Your task to perform on an android device: choose inbox layout in the gmail app Image 0: 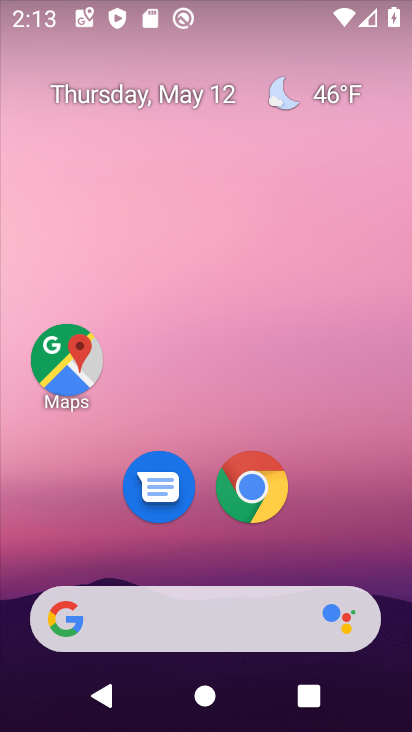
Step 0: drag from (197, 547) to (233, 54)
Your task to perform on an android device: choose inbox layout in the gmail app Image 1: 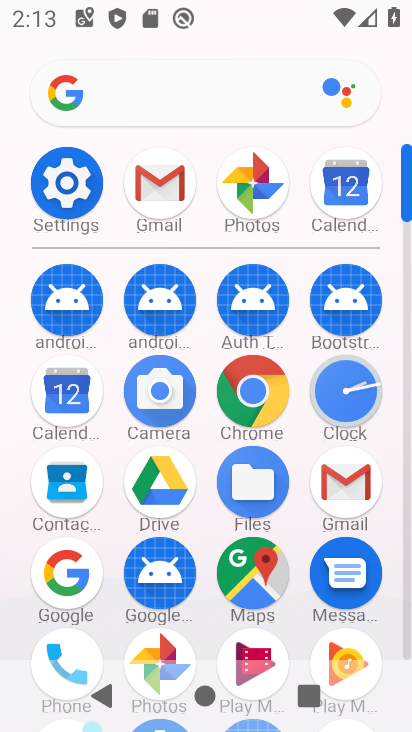
Step 1: click (158, 203)
Your task to perform on an android device: choose inbox layout in the gmail app Image 2: 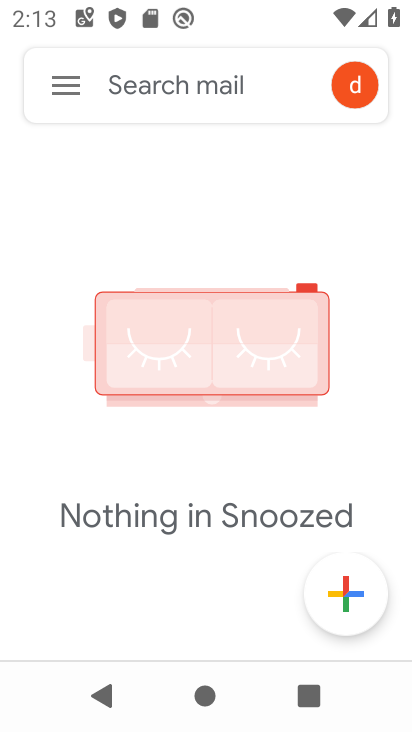
Step 2: click (62, 80)
Your task to perform on an android device: choose inbox layout in the gmail app Image 3: 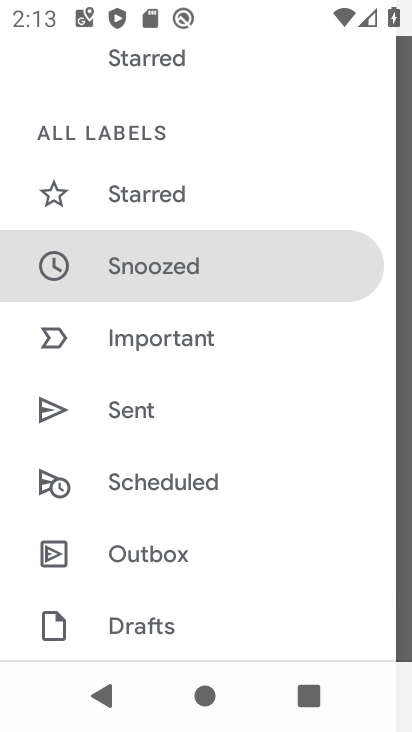
Step 3: drag from (169, 600) to (182, 173)
Your task to perform on an android device: choose inbox layout in the gmail app Image 4: 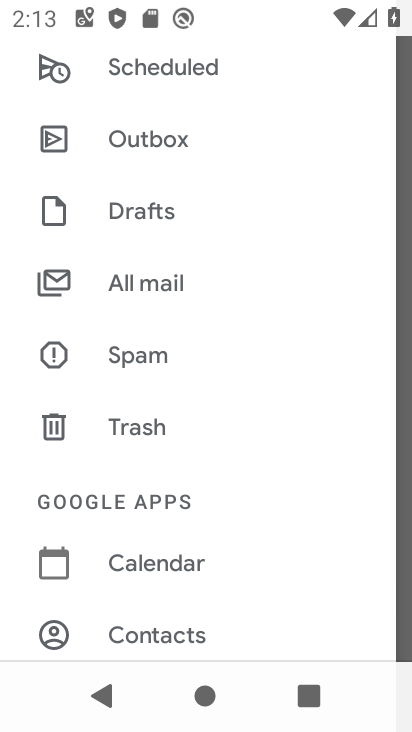
Step 4: drag from (173, 568) to (221, 177)
Your task to perform on an android device: choose inbox layout in the gmail app Image 5: 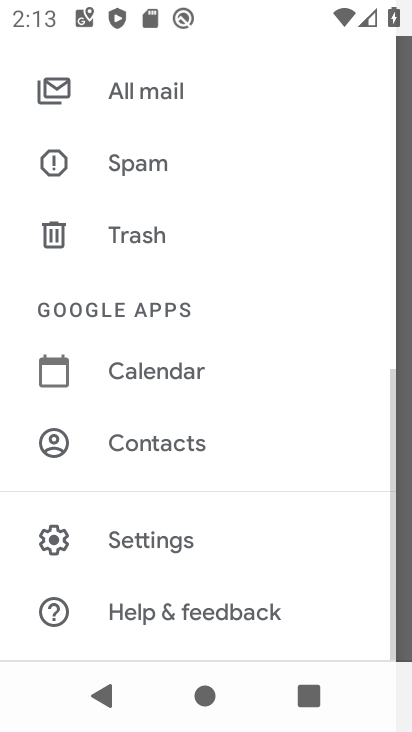
Step 5: click (172, 523)
Your task to perform on an android device: choose inbox layout in the gmail app Image 6: 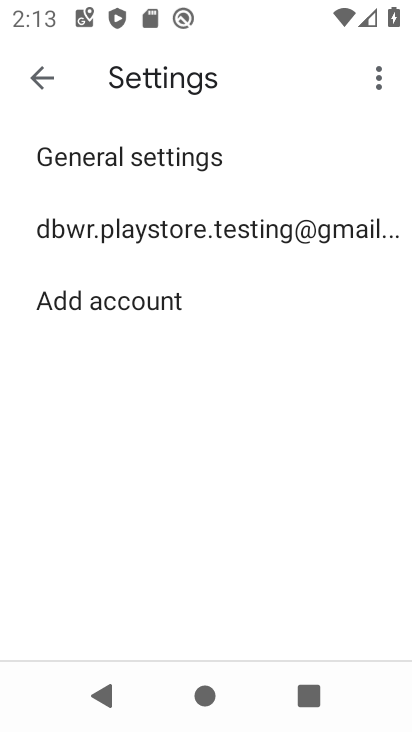
Step 6: click (212, 211)
Your task to perform on an android device: choose inbox layout in the gmail app Image 7: 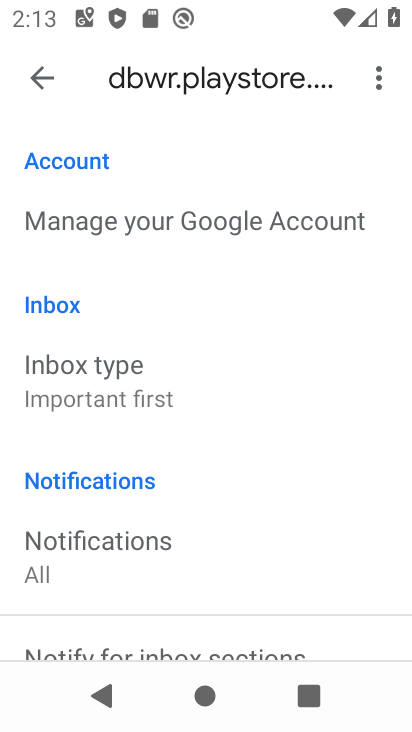
Step 7: click (139, 378)
Your task to perform on an android device: choose inbox layout in the gmail app Image 8: 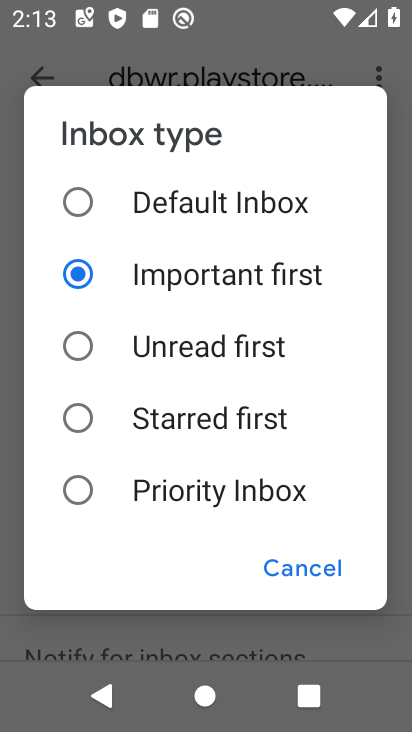
Step 8: click (175, 182)
Your task to perform on an android device: choose inbox layout in the gmail app Image 9: 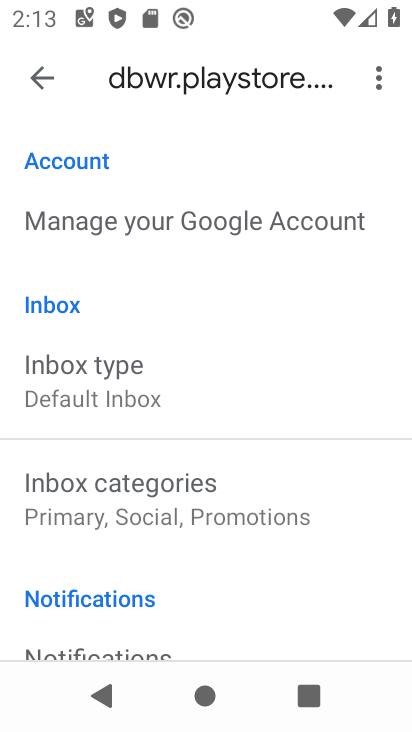
Step 9: task complete